Your task to perform on an android device: turn on bluetooth scan Image 0: 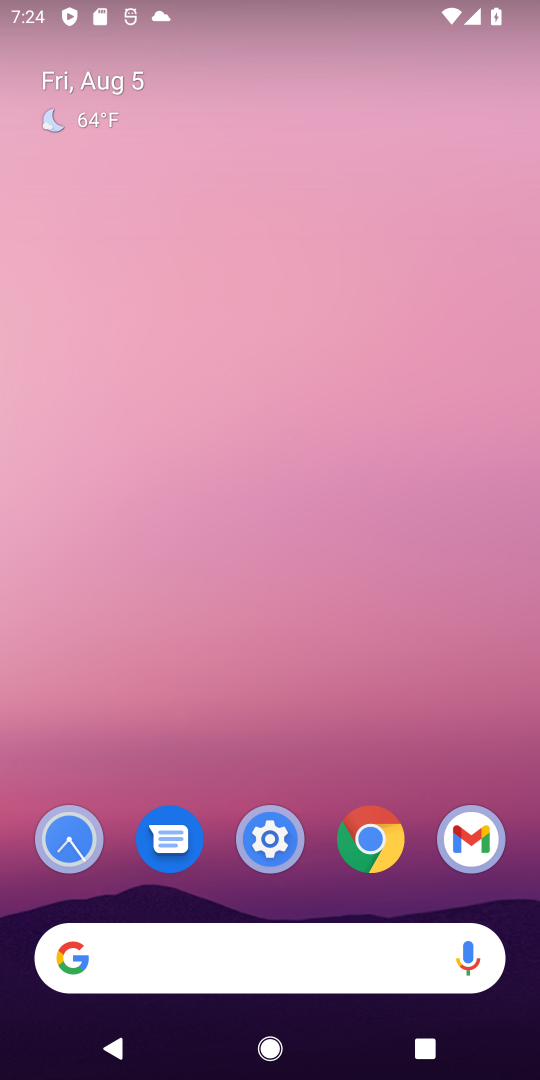
Step 0: drag from (304, 902) to (250, 122)
Your task to perform on an android device: turn on bluetooth scan Image 1: 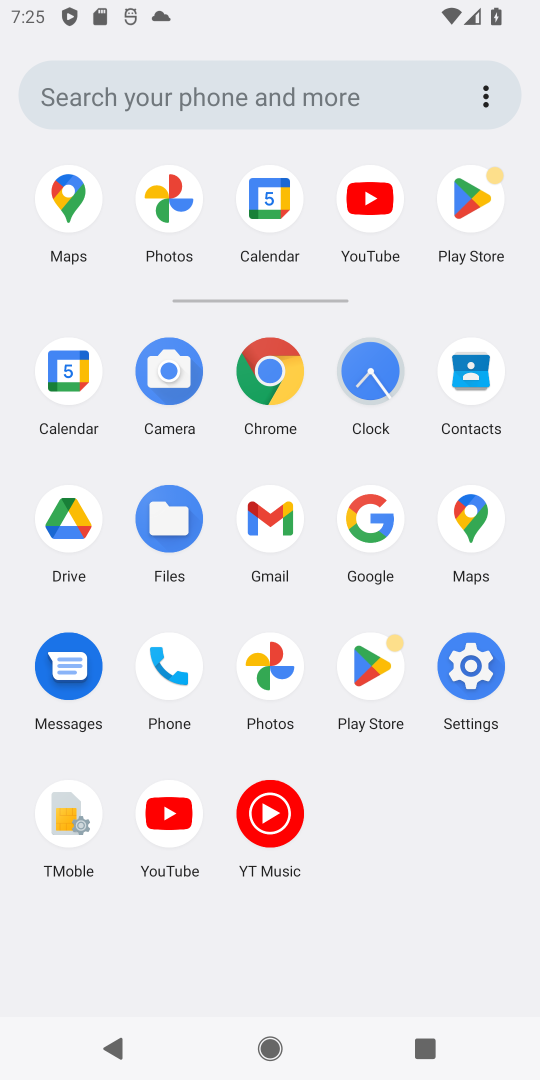
Step 1: click (462, 665)
Your task to perform on an android device: turn on bluetooth scan Image 2: 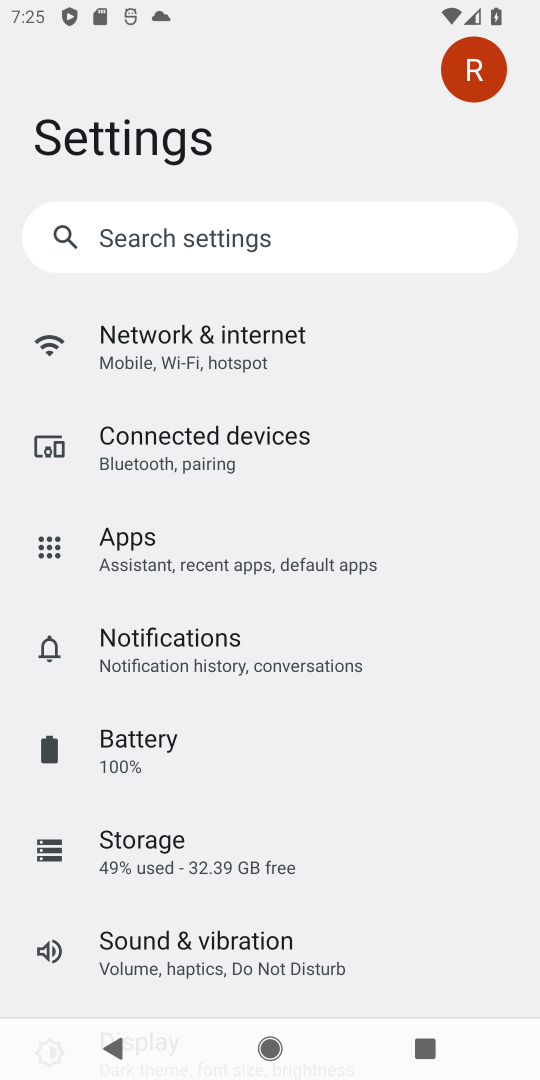
Step 2: drag from (154, 878) to (198, 437)
Your task to perform on an android device: turn on bluetooth scan Image 3: 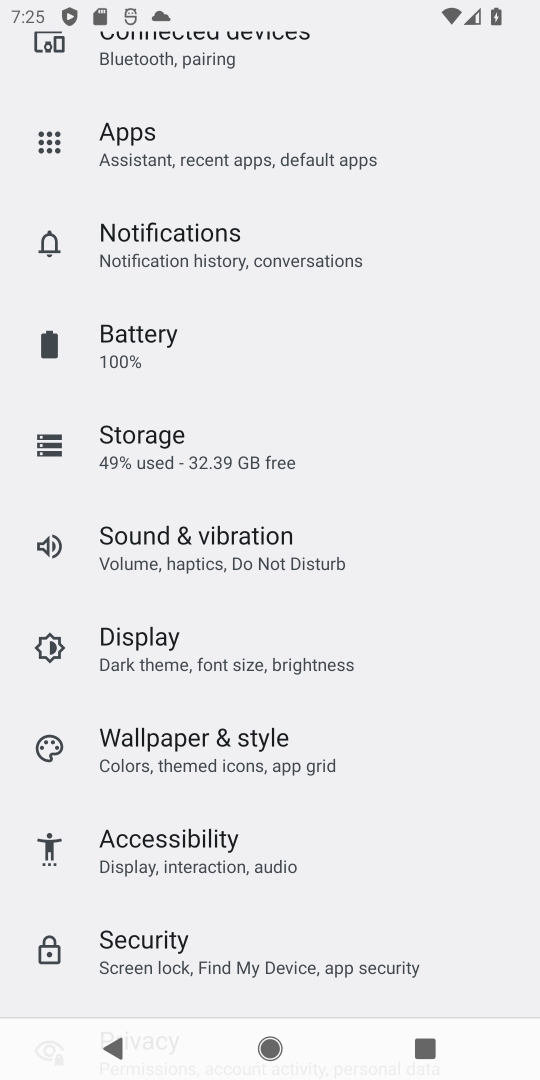
Step 3: drag from (181, 858) to (198, 468)
Your task to perform on an android device: turn on bluetooth scan Image 4: 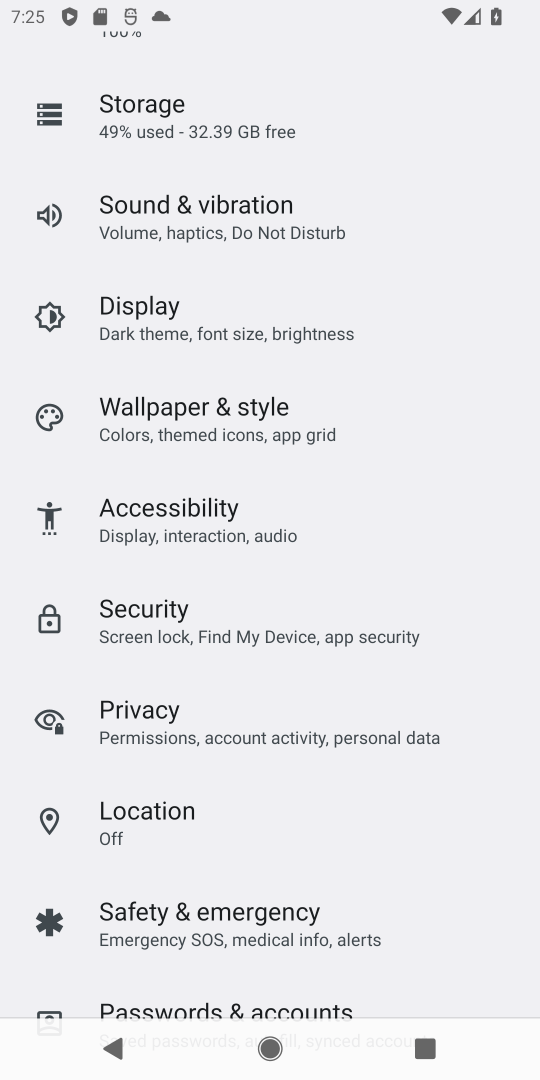
Step 4: click (131, 812)
Your task to perform on an android device: turn on bluetooth scan Image 5: 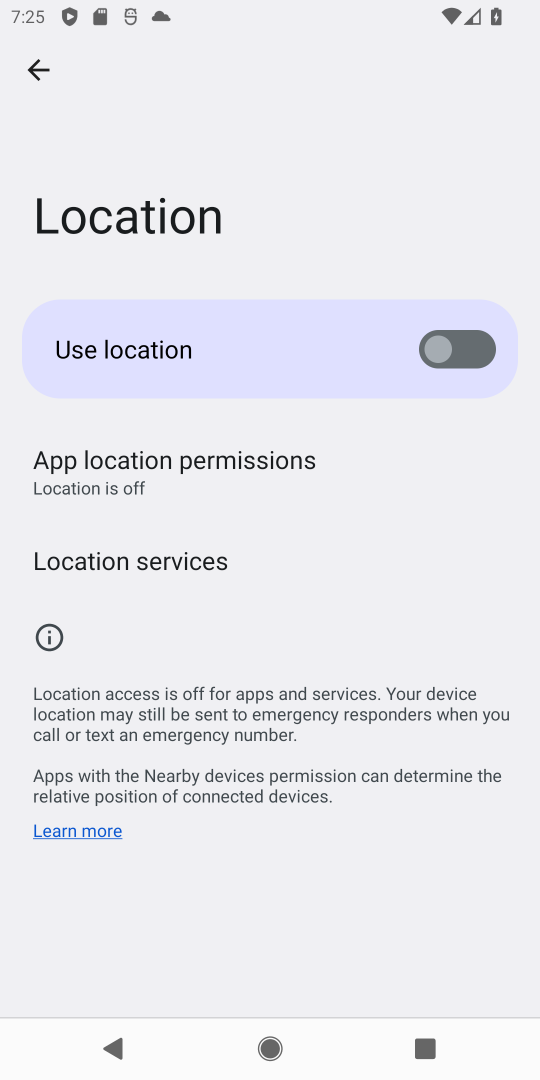
Step 5: click (162, 563)
Your task to perform on an android device: turn on bluetooth scan Image 6: 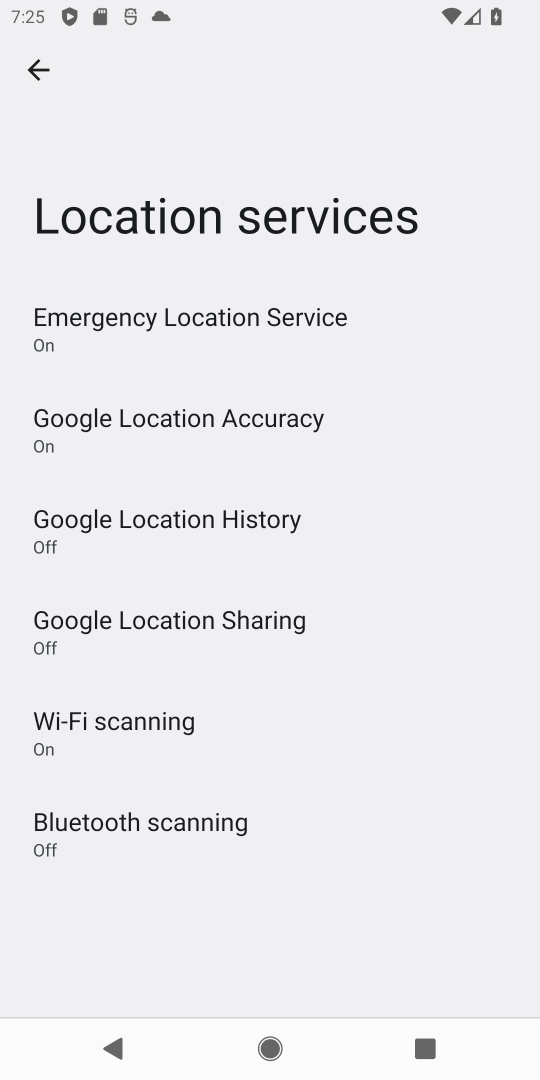
Step 6: click (174, 828)
Your task to perform on an android device: turn on bluetooth scan Image 7: 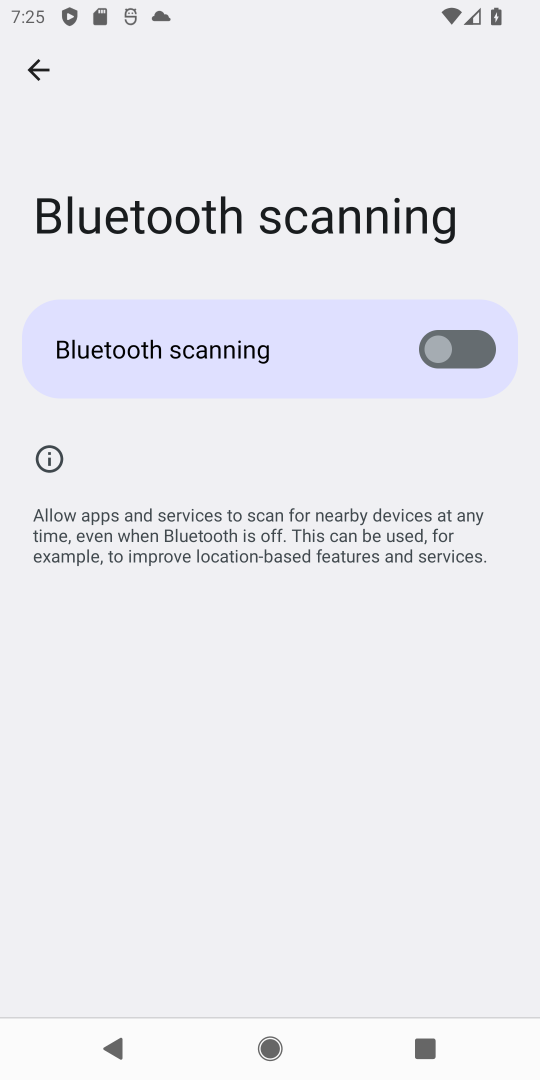
Step 7: click (467, 329)
Your task to perform on an android device: turn on bluetooth scan Image 8: 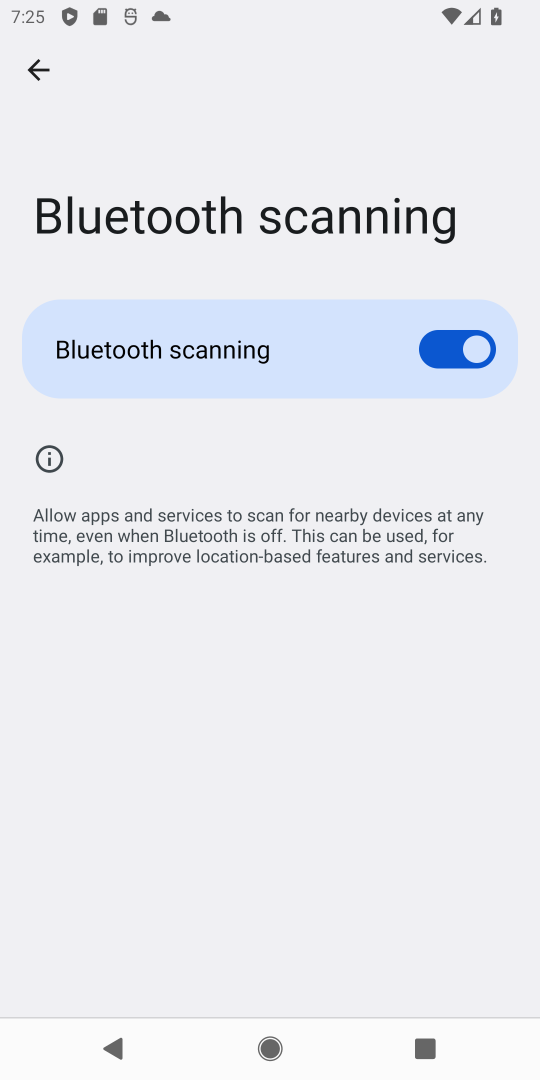
Step 8: task complete